Your task to perform on an android device: Play the last video I watched on Youtube Image 0: 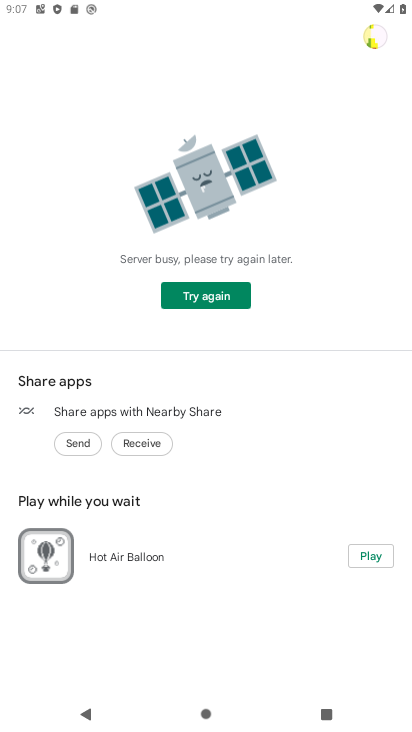
Step 0: drag from (247, 578) to (309, 266)
Your task to perform on an android device: Play the last video I watched on Youtube Image 1: 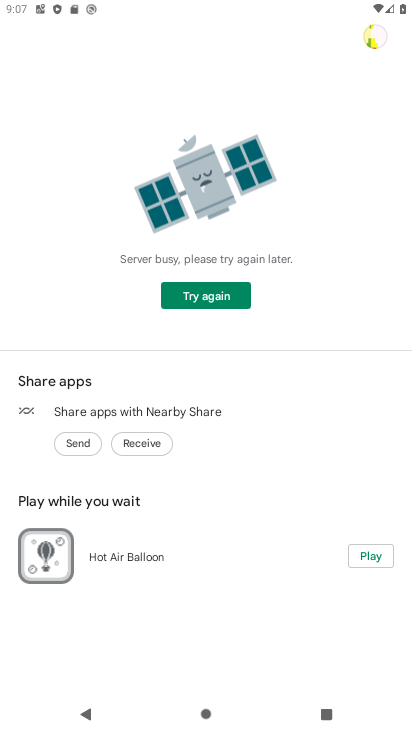
Step 1: press home button
Your task to perform on an android device: Play the last video I watched on Youtube Image 2: 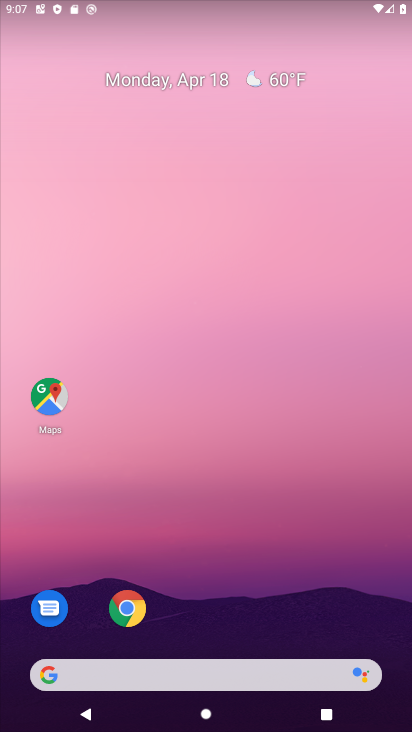
Step 2: drag from (189, 633) to (248, 189)
Your task to perform on an android device: Play the last video I watched on Youtube Image 3: 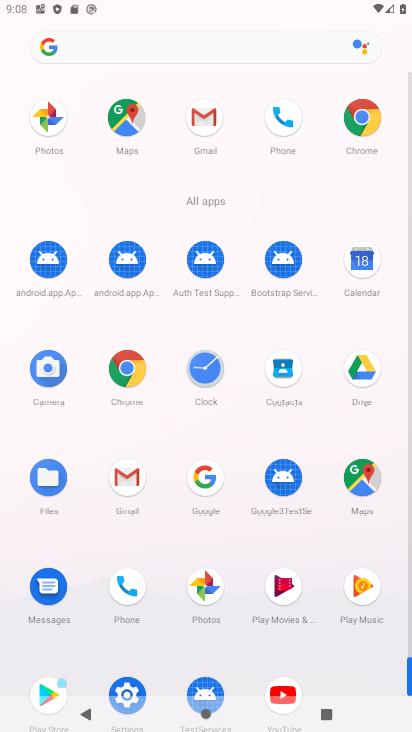
Step 3: drag from (226, 661) to (268, 330)
Your task to perform on an android device: Play the last video I watched on Youtube Image 4: 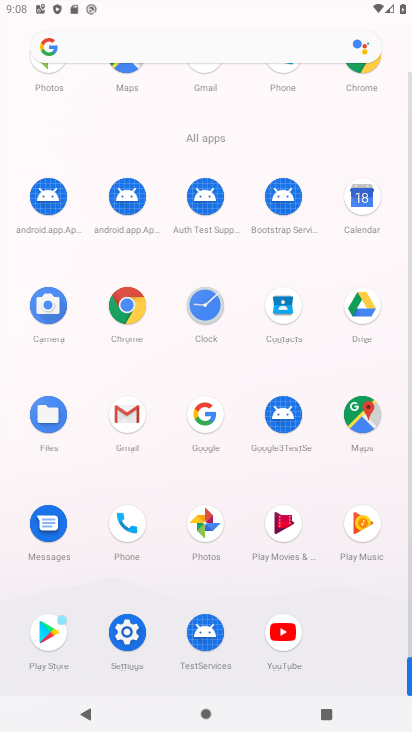
Step 4: drag from (177, 392) to (239, 31)
Your task to perform on an android device: Play the last video I watched on Youtube Image 5: 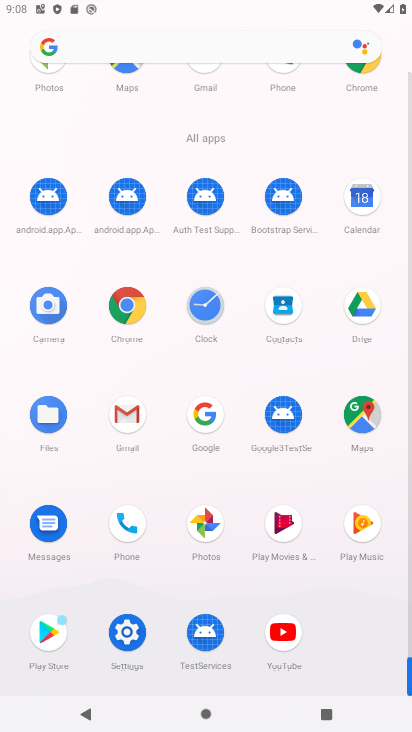
Step 5: click (282, 627)
Your task to perform on an android device: Play the last video I watched on Youtube Image 6: 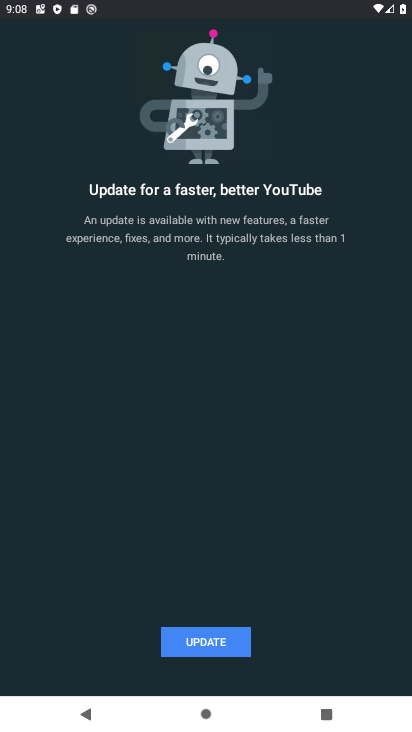
Step 6: click (206, 644)
Your task to perform on an android device: Play the last video I watched on Youtube Image 7: 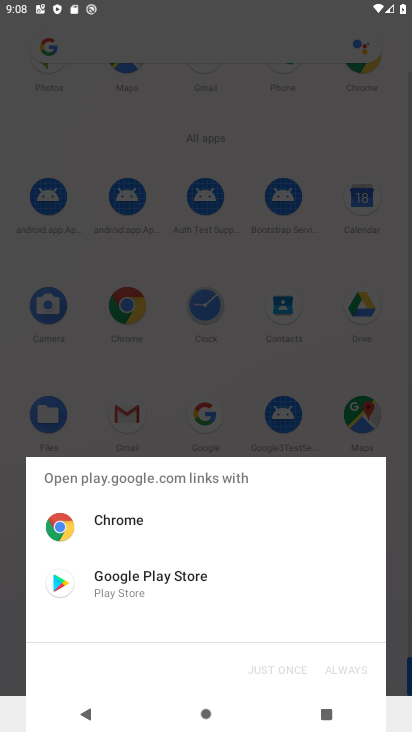
Step 7: click (194, 592)
Your task to perform on an android device: Play the last video I watched on Youtube Image 8: 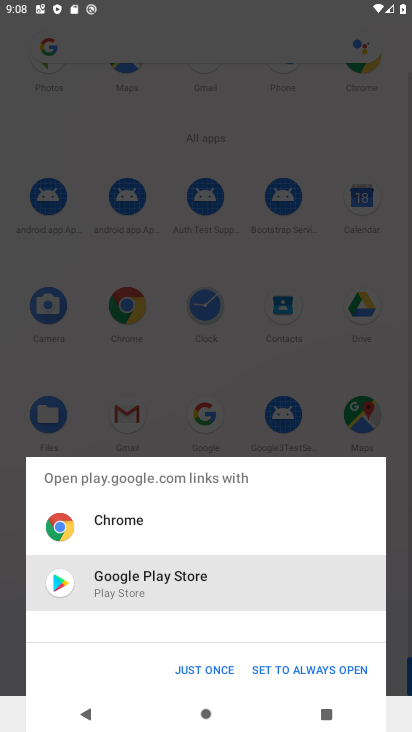
Step 8: click (208, 660)
Your task to perform on an android device: Play the last video I watched on Youtube Image 9: 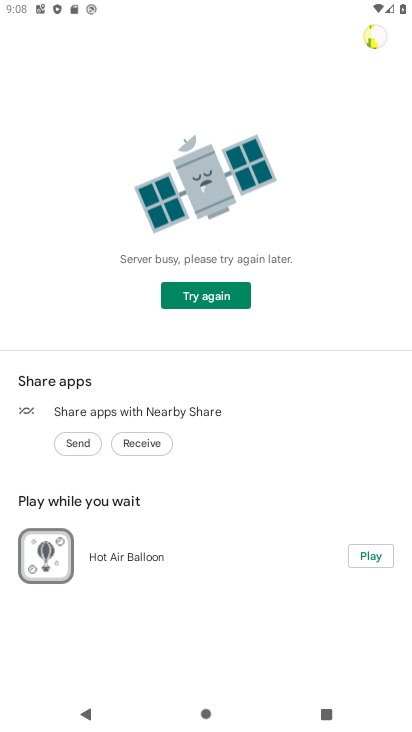
Step 9: click (186, 297)
Your task to perform on an android device: Play the last video I watched on Youtube Image 10: 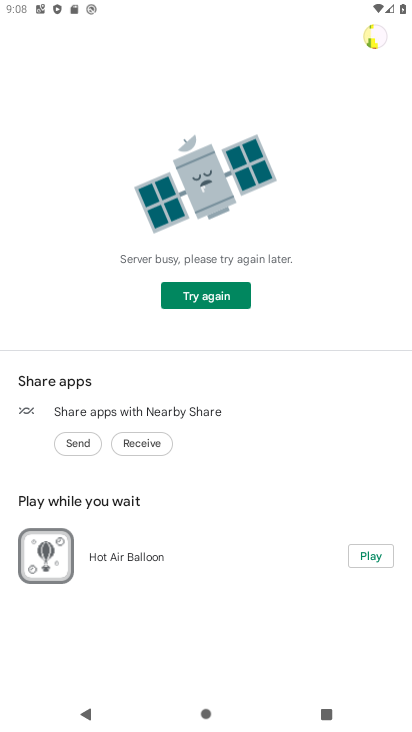
Step 10: task complete